Your task to perform on an android device: Open Google Maps Image 0: 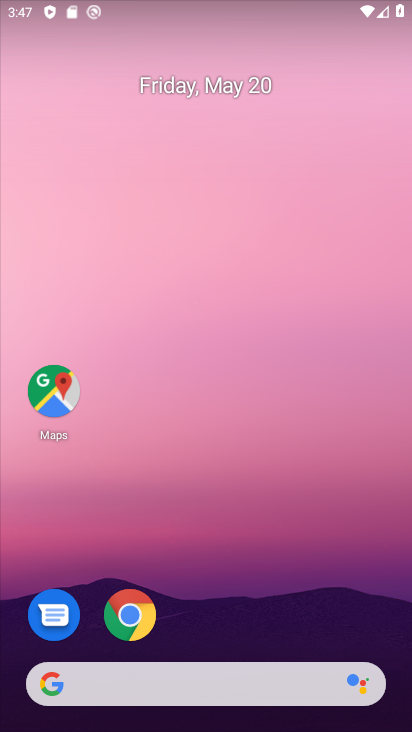
Step 0: drag from (243, 587) to (292, 274)
Your task to perform on an android device: Open Google Maps Image 1: 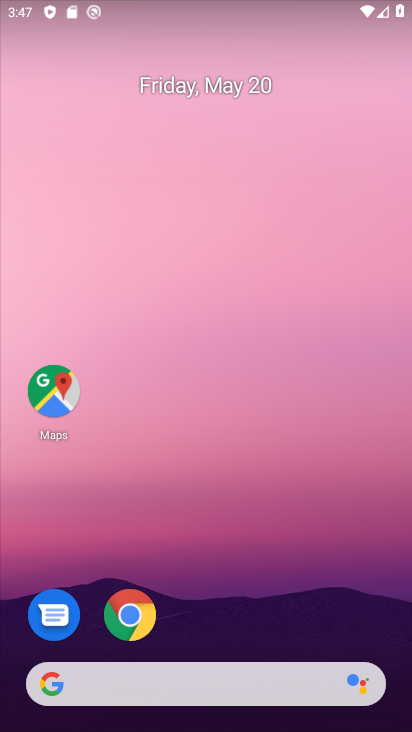
Step 1: drag from (207, 625) to (293, 219)
Your task to perform on an android device: Open Google Maps Image 2: 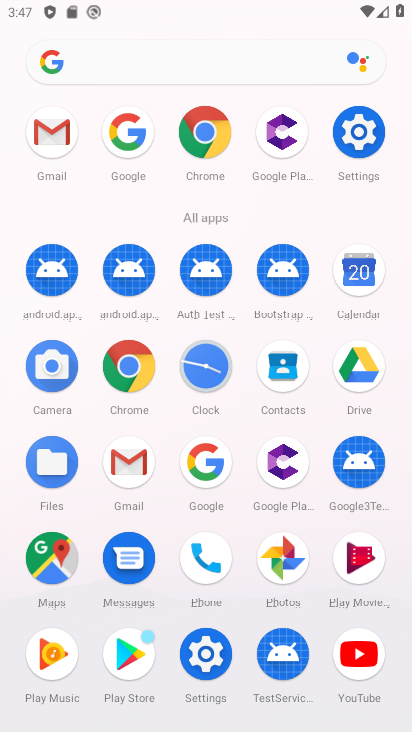
Step 2: drag from (242, 571) to (272, 353)
Your task to perform on an android device: Open Google Maps Image 3: 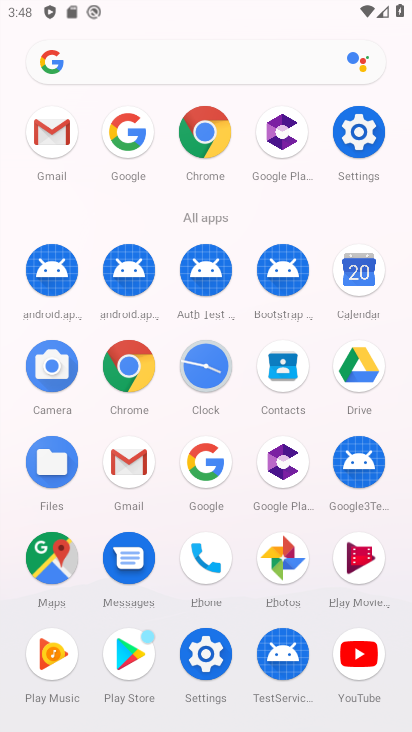
Step 3: click (58, 549)
Your task to perform on an android device: Open Google Maps Image 4: 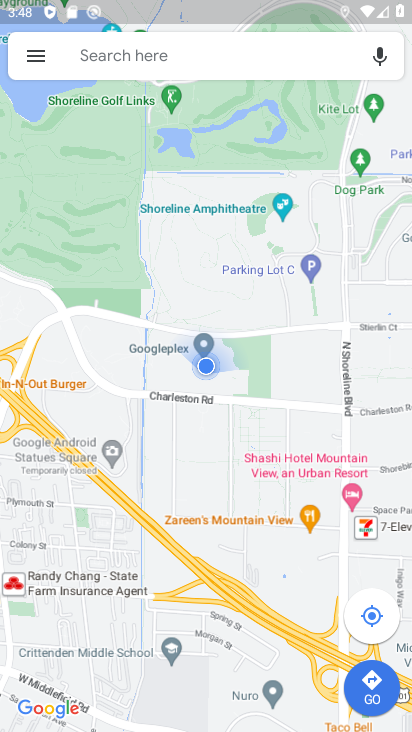
Step 4: task complete